Your task to perform on an android device: toggle translation in the chrome app Image 0: 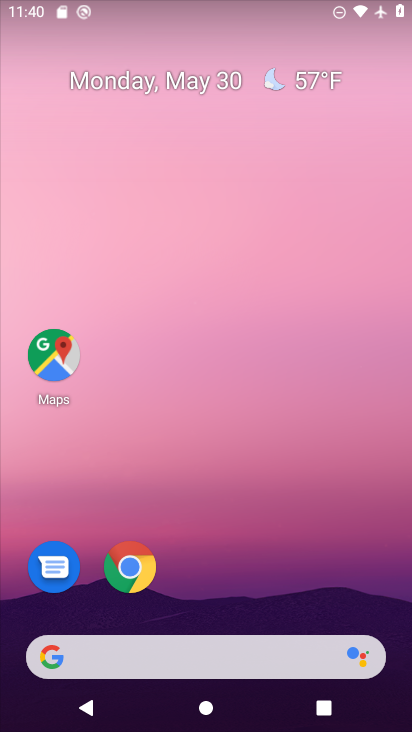
Step 0: click (123, 562)
Your task to perform on an android device: toggle translation in the chrome app Image 1: 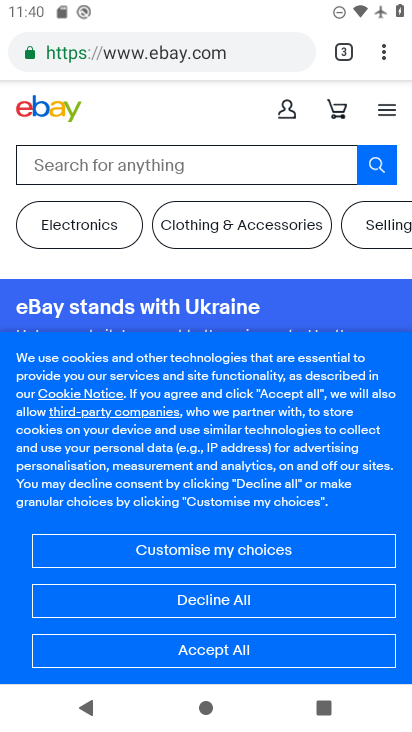
Step 1: click (388, 48)
Your task to perform on an android device: toggle translation in the chrome app Image 2: 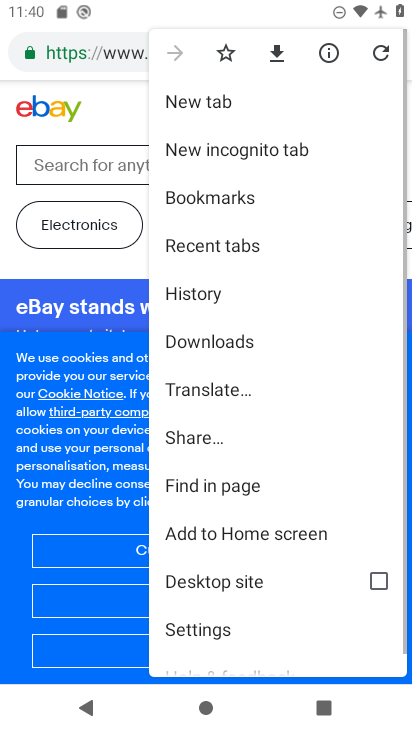
Step 2: drag from (233, 621) to (246, 367)
Your task to perform on an android device: toggle translation in the chrome app Image 3: 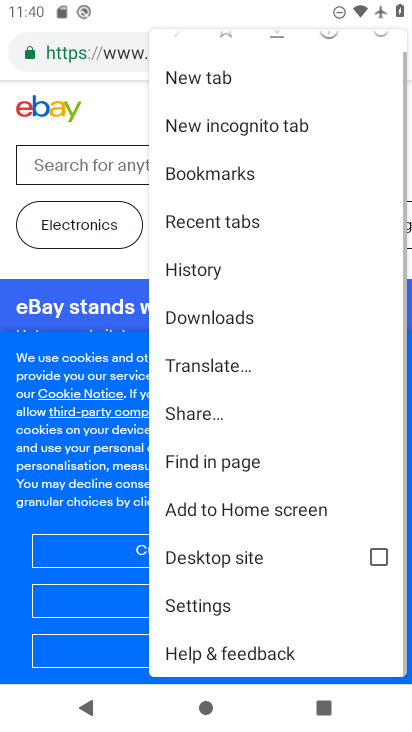
Step 3: click (205, 602)
Your task to perform on an android device: toggle translation in the chrome app Image 4: 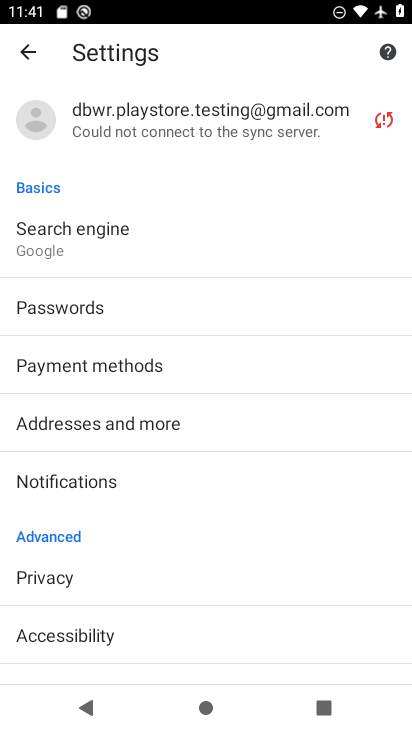
Step 4: drag from (149, 622) to (182, 311)
Your task to perform on an android device: toggle translation in the chrome app Image 5: 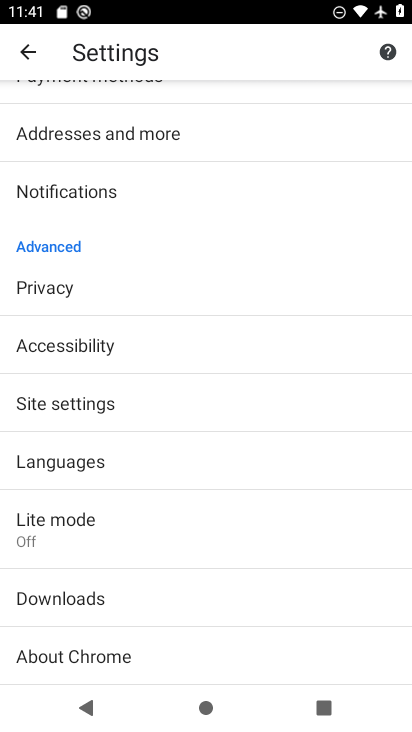
Step 5: drag from (136, 610) to (206, 319)
Your task to perform on an android device: toggle translation in the chrome app Image 6: 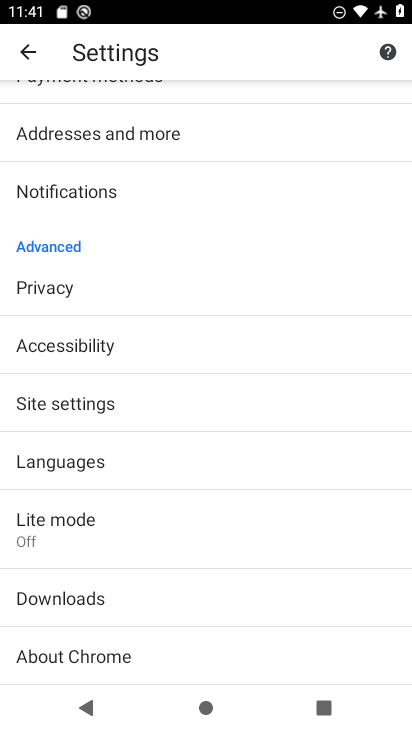
Step 6: click (121, 453)
Your task to perform on an android device: toggle translation in the chrome app Image 7: 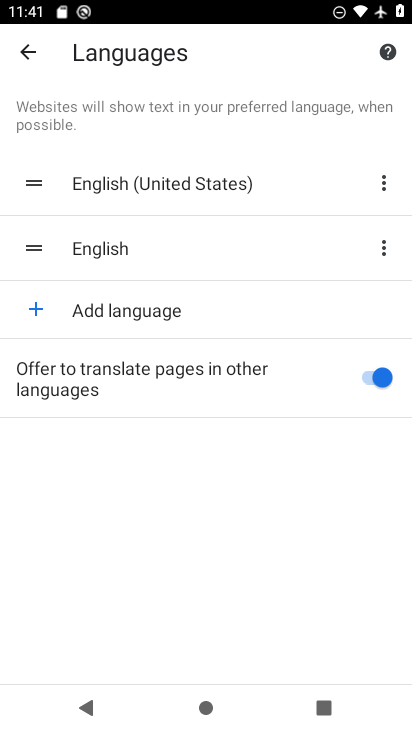
Step 7: click (361, 377)
Your task to perform on an android device: toggle translation in the chrome app Image 8: 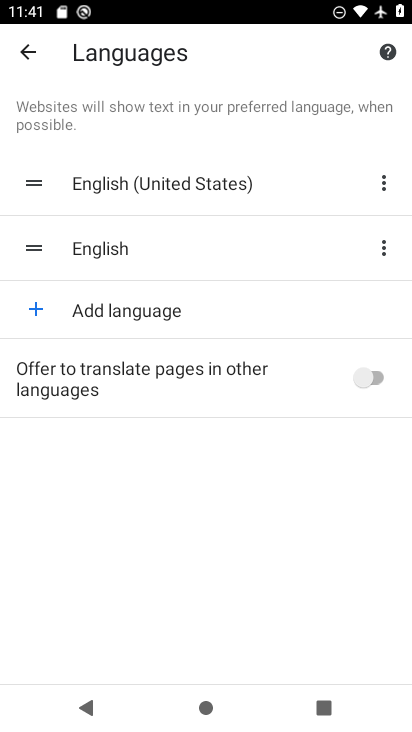
Step 8: task complete